Your task to perform on an android device: toggle improve location accuracy Image 0: 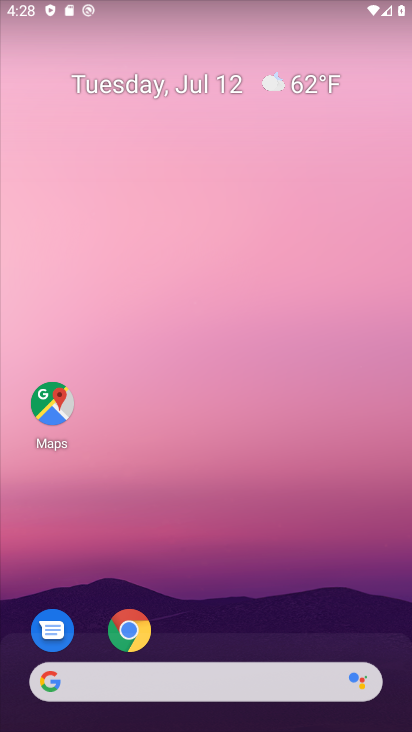
Step 0: drag from (250, 665) to (359, 110)
Your task to perform on an android device: toggle improve location accuracy Image 1: 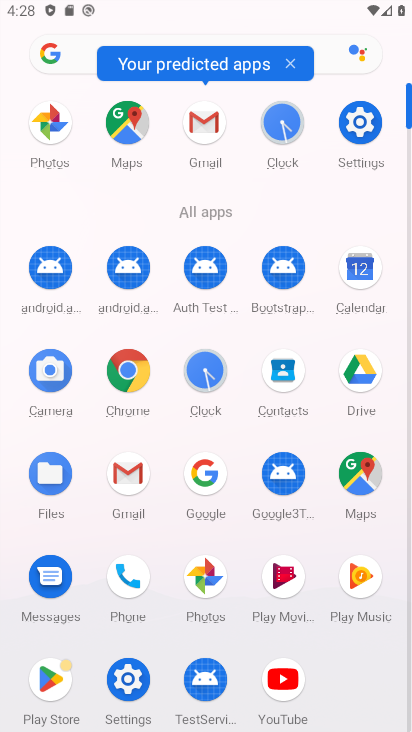
Step 1: click (124, 689)
Your task to perform on an android device: toggle improve location accuracy Image 2: 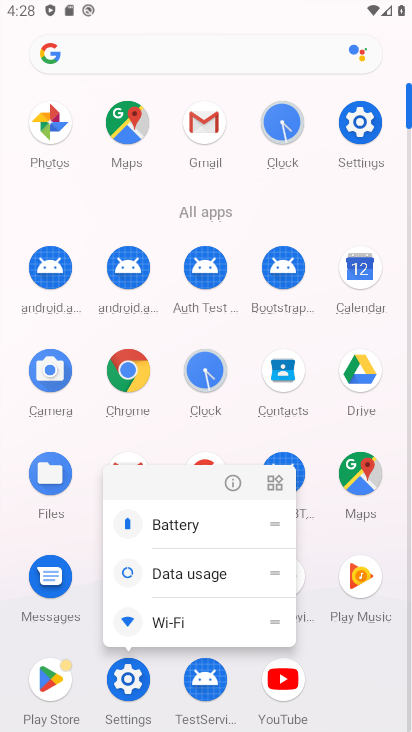
Step 2: click (124, 689)
Your task to perform on an android device: toggle improve location accuracy Image 3: 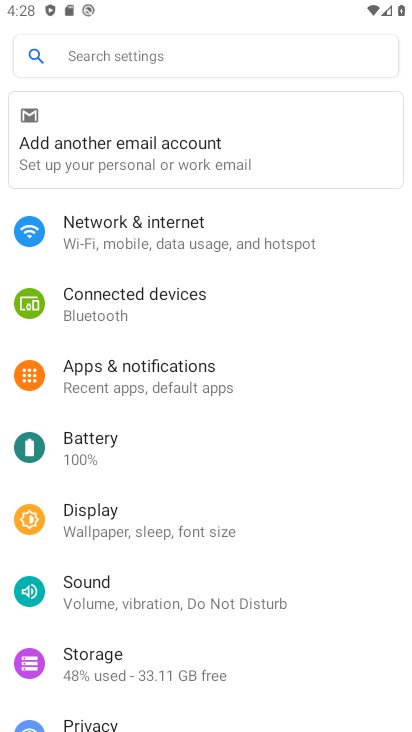
Step 3: drag from (164, 673) to (248, 354)
Your task to perform on an android device: toggle improve location accuracy Image 4: 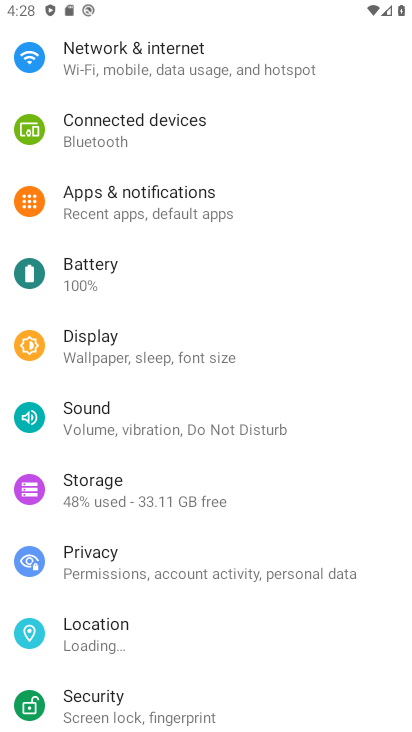
Step 4: click (131, 630)
Your task to perform on an android device: toggle improve location accuracy Image 5: 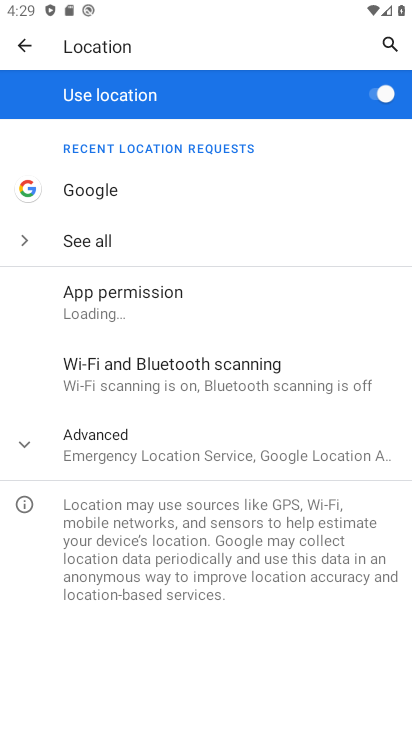
Step 5: click (169, 448)
Your task to perform on an android device: toggle improve location accuracy Image 6: 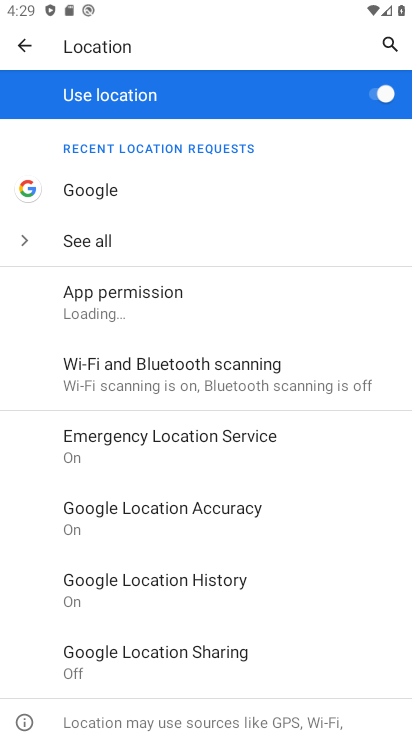
Step 6: click (258, 527)
Your task to perform on an android device: toggle improve location accuracy Image 7: 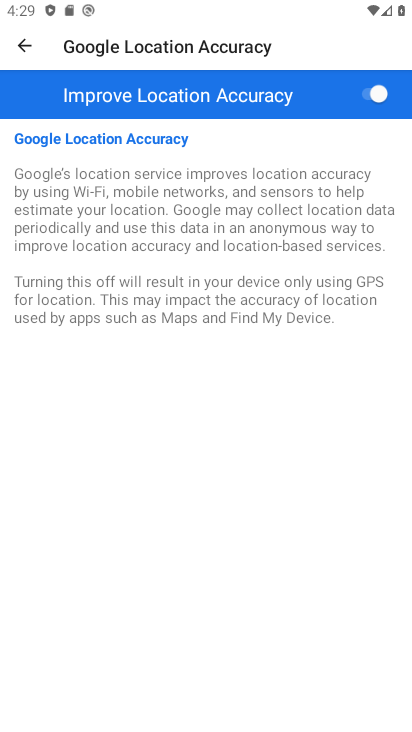
Step 7: click (367, 89)
Your task to perform on an android device: toggle improve location accuracy Image 8: 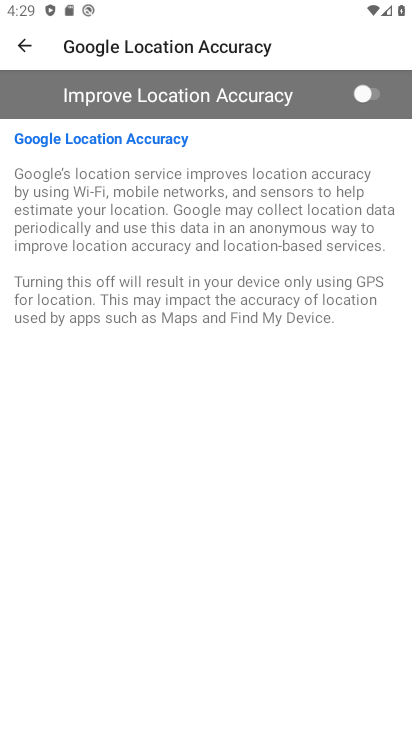
Step 8: task complete